Your task to perform on an android device: Go to internet settings Image 0: 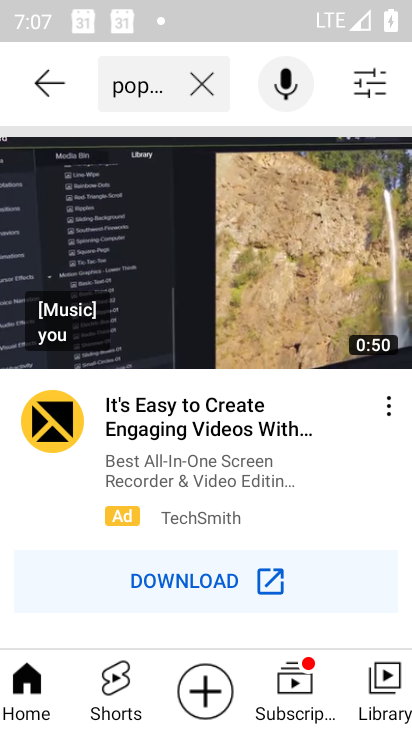
Step 0: press home button
Your task to perform on an android device: Go to internet settings Image 1: 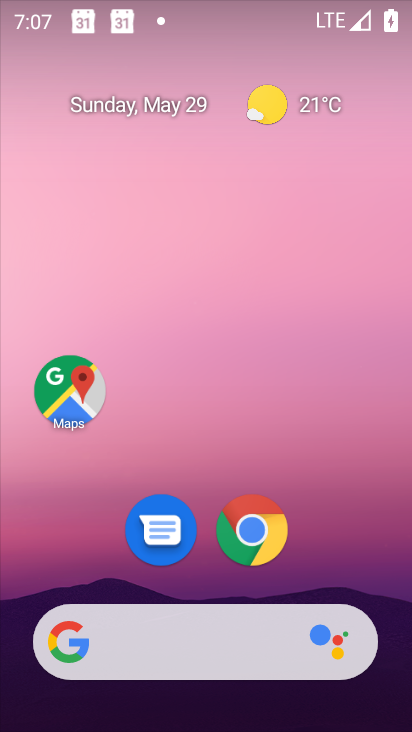
Step 1: drag from (251, 687) to (307, 241)
Your task to perform on an android device: Go to internet settings Image 2: 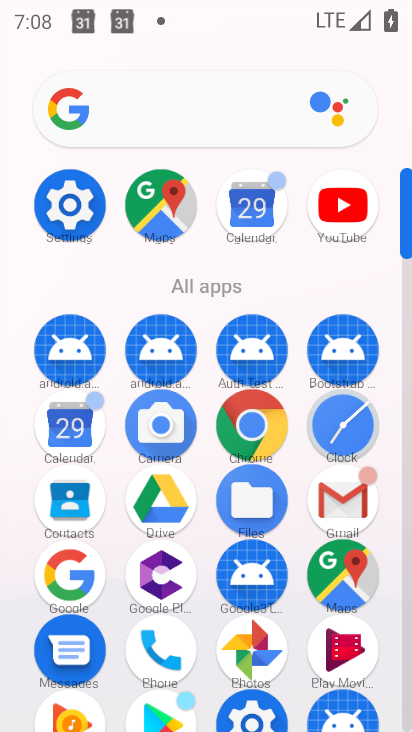
Step 2: click (92, 194)
Your task to perform on an android device: Go to internet settings Image 3: 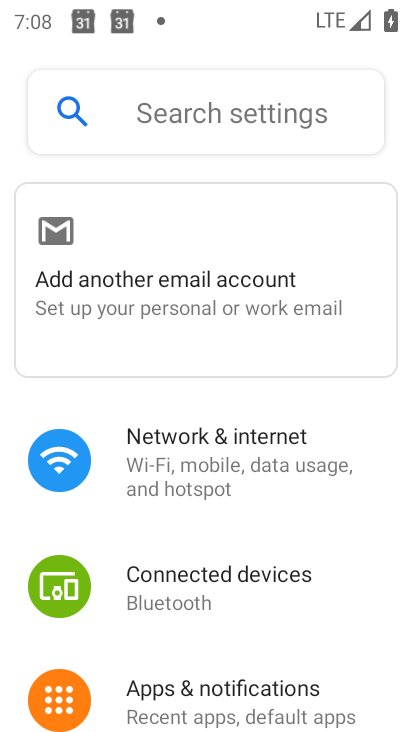
Step 3: click (195, 434)
Your task to perform on an android device: Go to internet settings Image 4: 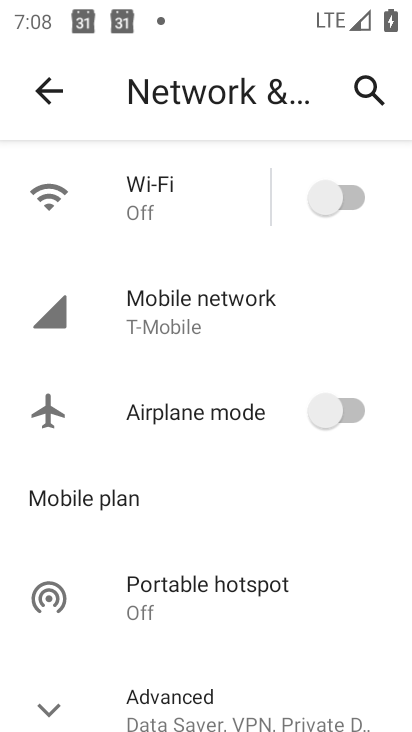
Step 4: task complete